Your task to perform on an android device: Search for seafood restaurants on Google Maps Image 0: 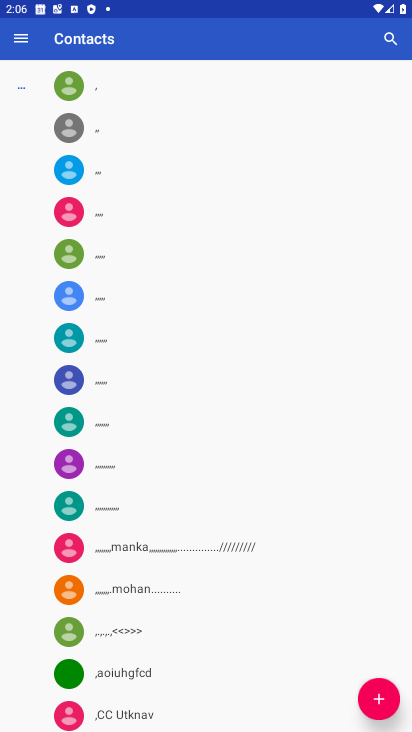
Step 0: press home button
Your task to perform on an android device: Search for seafood restaurants on Google Maps Image 1: 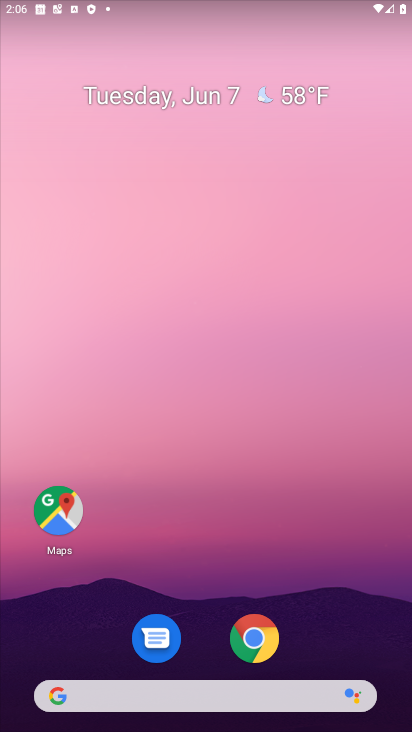
Step 1: click (49, 526)
Your task to perform on an android device: Search for seafood restaurants on Google Maps Image 2: 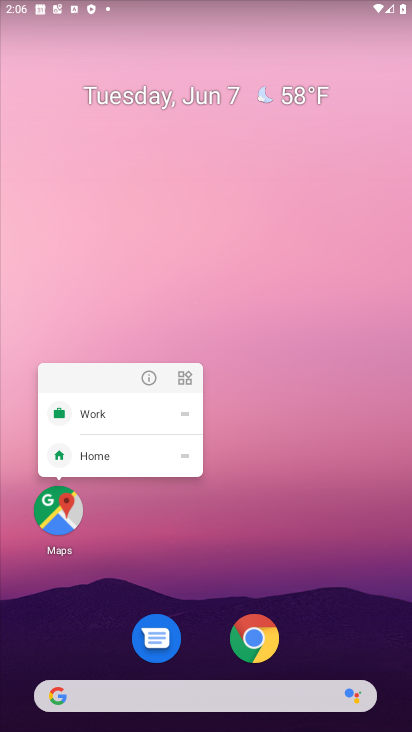
Step 2: click (148, 369)
Your task to perform on an android device: Search for seafood restaurants on Google Maps Image 3: 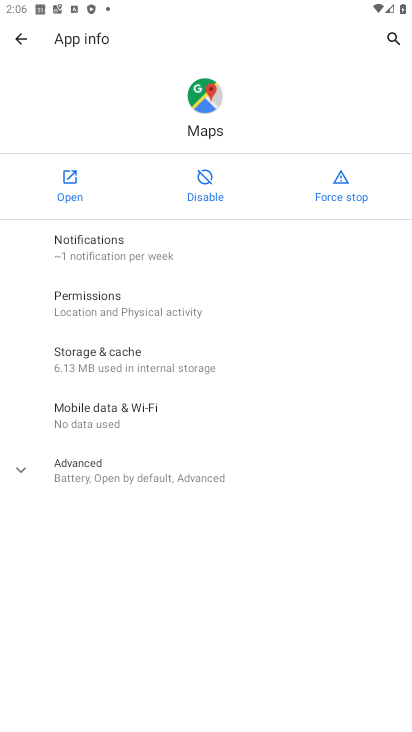
Step 3: click (78, 175)
Your task to perform on an android device: Search for seafood restaurants on Google Maps Image 4: 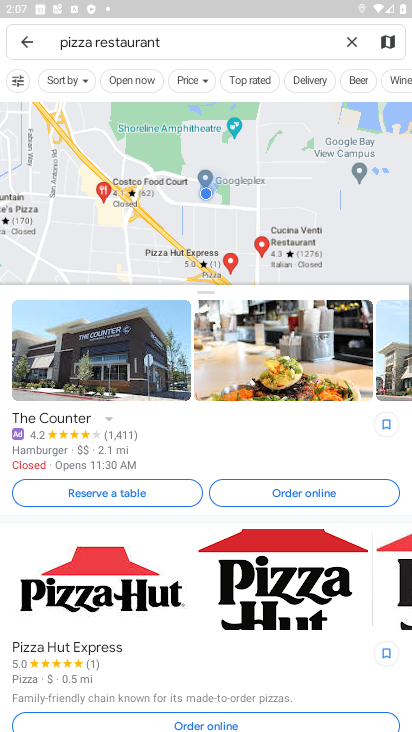
Step 4: click (344, 38)
Your task to perform on an android device: Search for seafood restaurants on Google Maps Image 5: 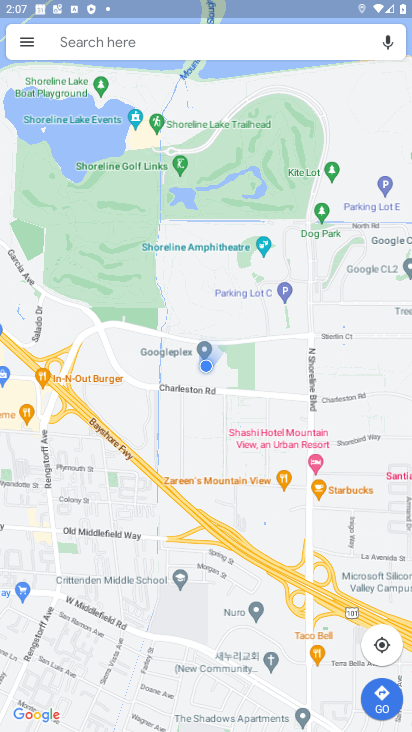
Step 5: type " seafood restaurants "
Your task to perform on an android device: Search for seafood restaurants on Google Maps Image 6: 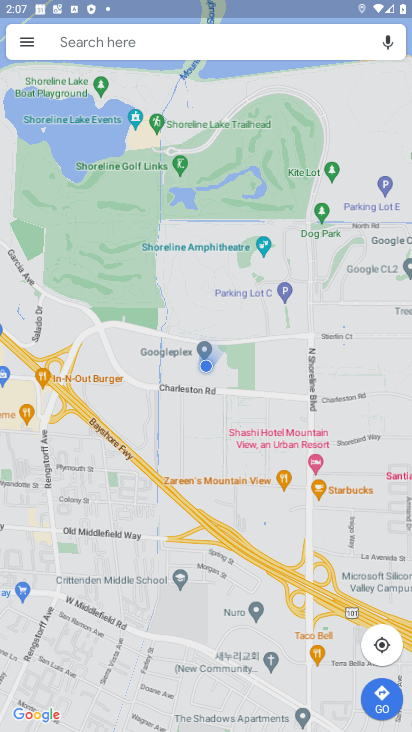
Step 6: click (100, 37)
Your task to perform on an android device: Search for seafood restaurants on Google Maps Image 7: 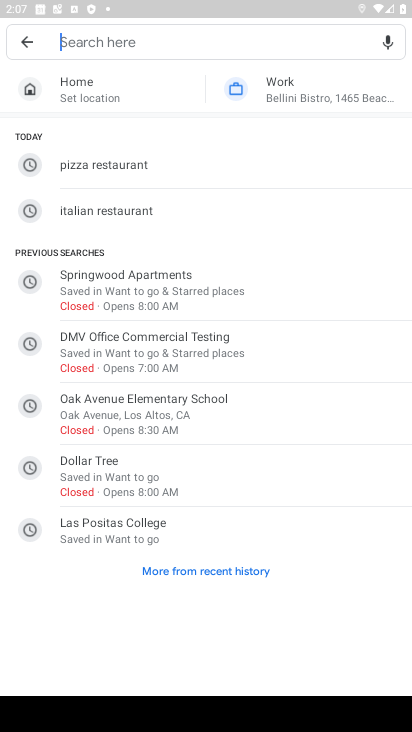
Step 7: type " seafood restaurants "
Your task to perform on an android device: Search for seafood restaurants on Google Maps Image 8: 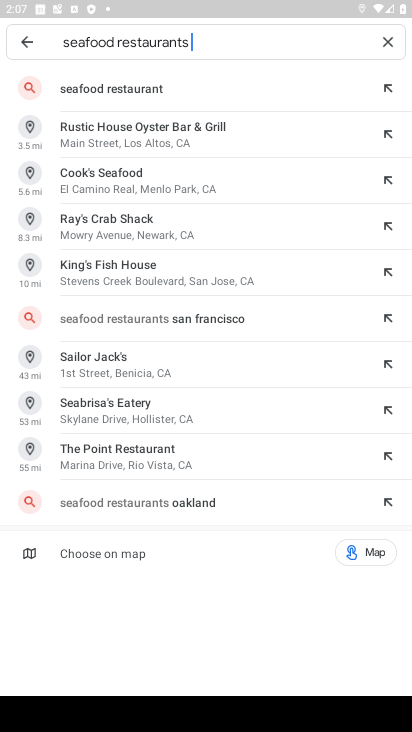
Step 8: click (88, 86)
Your task to perform on an android device: Search for seafood restaurants on Google Maps Image 9: 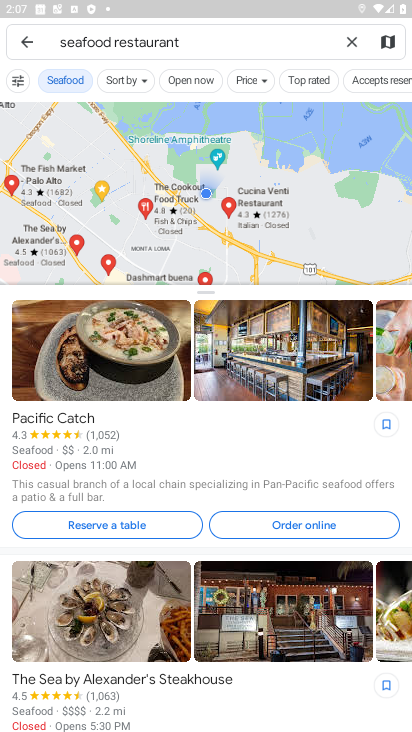
Step 9: task complete